Your task to perform on an android device: turn off improve location accuracy Image 0: 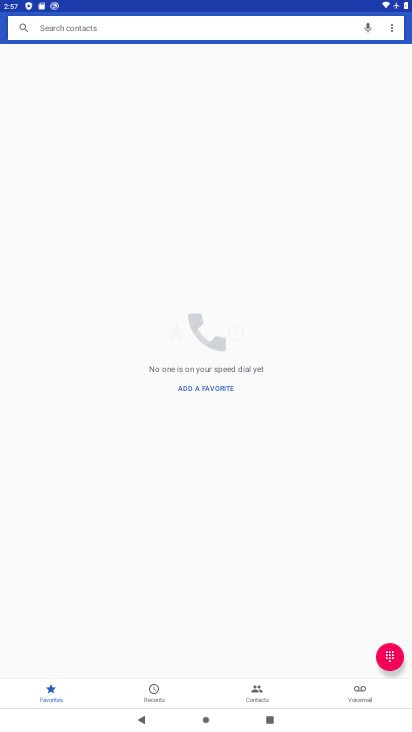
Step 0: press back button
Your task to perform on an android device: turn off improve location accuracy Image 1: 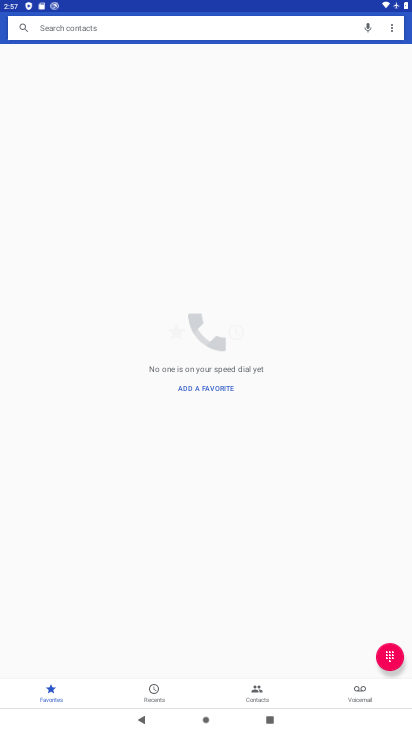
Step 1: press back button
Your task to perform on an android device: turn off improve location accuracy Image 2: 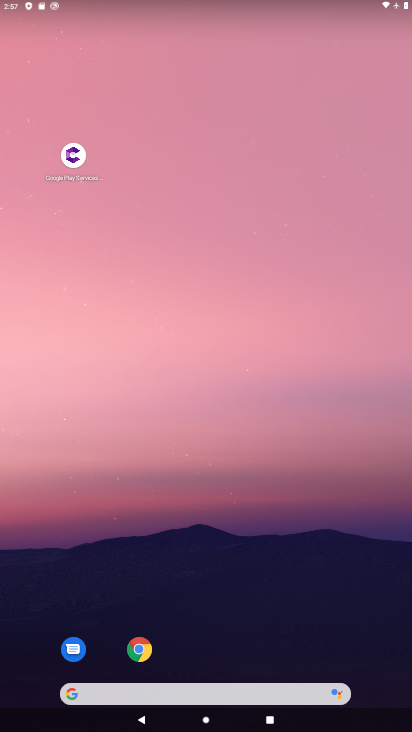
Step 2: drag from (269, 598) to (241, 79)
Your task to perform on an android device: turn off improve location accuracy Image 3: 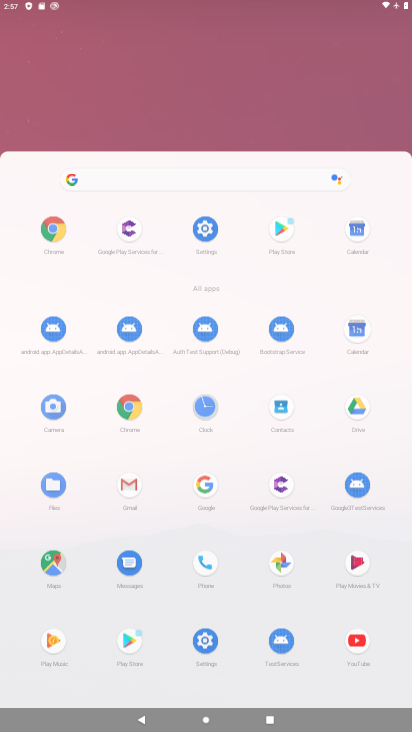
Step 3: drag from (209, 537) to (190, 13)
Your task to perform on an android device: turn off improve location accuracy Image 4: 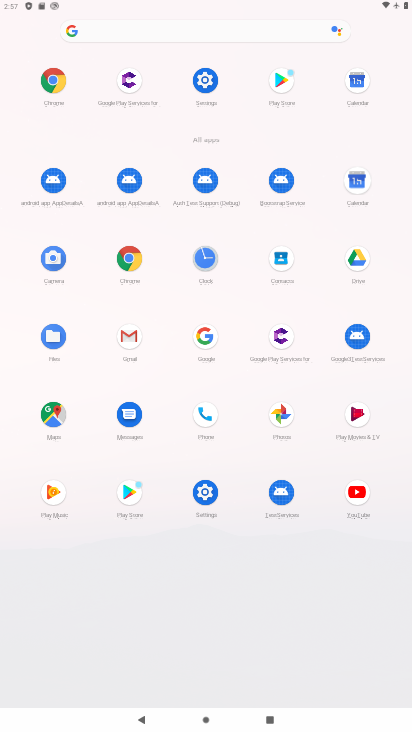
Step 4: click (204, 76)
Your task to perform on an android device: turn off improve location accuracy Image 5: 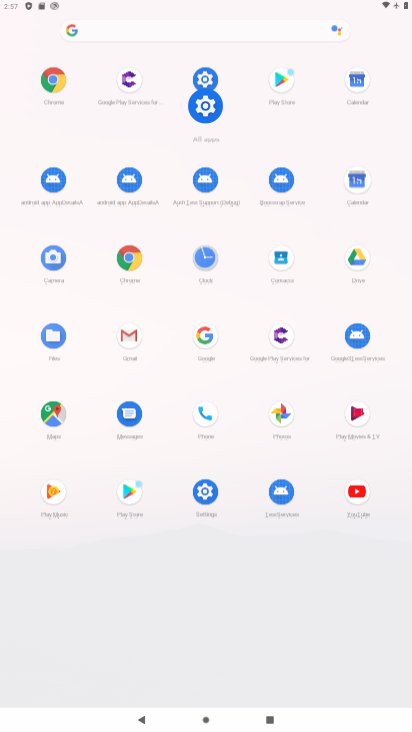
Step 5: click (204, 76)
Your task to perform on an android device: turn off improve location accuracy Image 6: 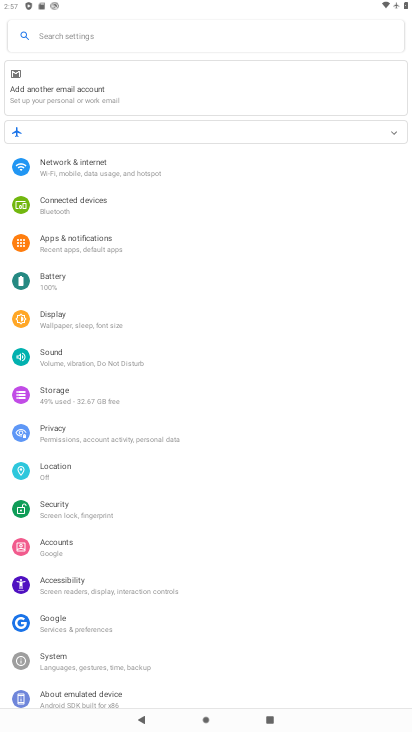
Step 6: click (58, 469)
Your task to perform on an android device: turn off improve location accuracy Image 7: 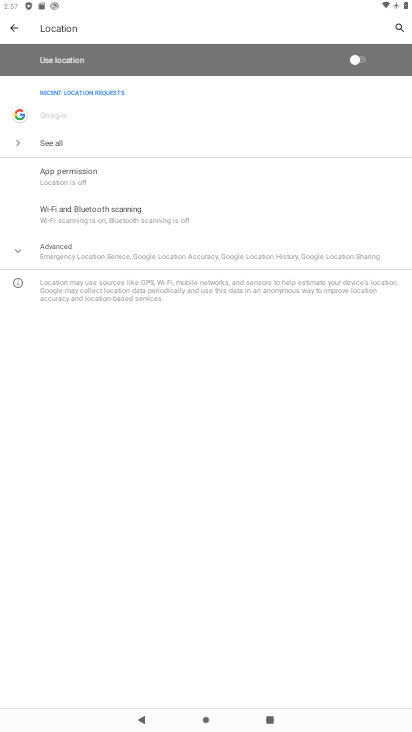
Step 7: click (82, 254)
Your task to perform on an android device: turn off improve location accuracy Image 8: 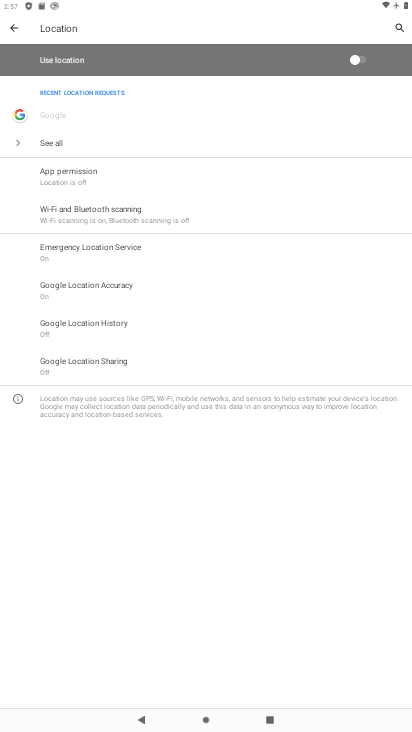
Step 8: click (108, 277)
Your task to perform on an android device: turn off improve location accuracy Image 9: 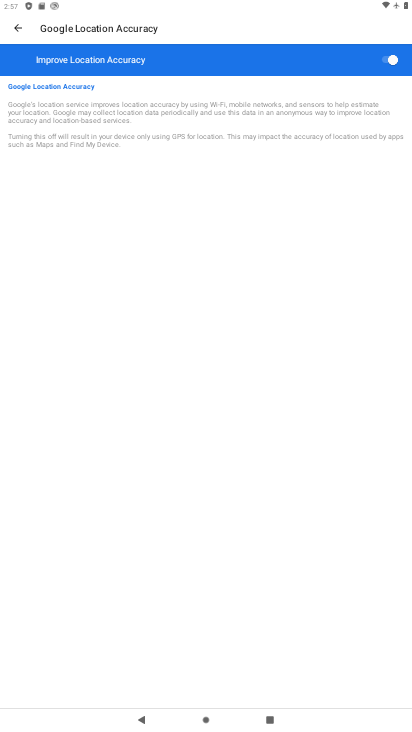
Step 9: click (393, 57)
Your task to perform on an android device: turn off improve location accuracy Image 10: 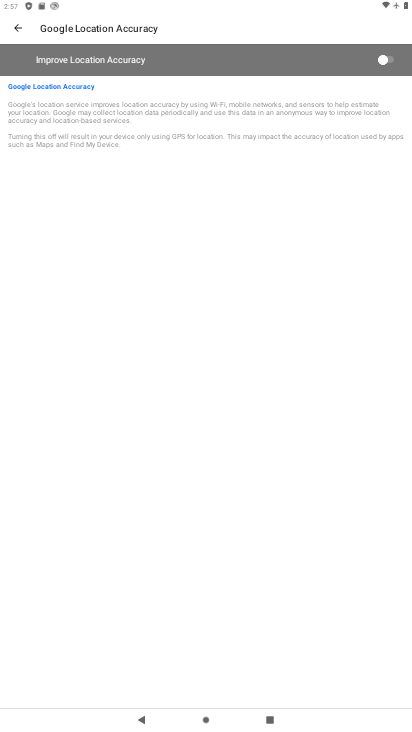
Step 10: task complete